Your task to perform on an android device: visit the assistant section in the google photos Image 0: 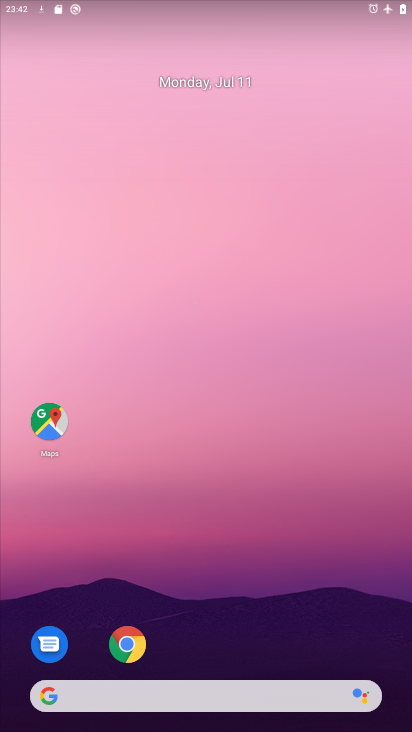
Step 0: drag from (164, 601) to (157, 296)
Your task to perform on an android device: visit the assistant section in the google photos Image 1: 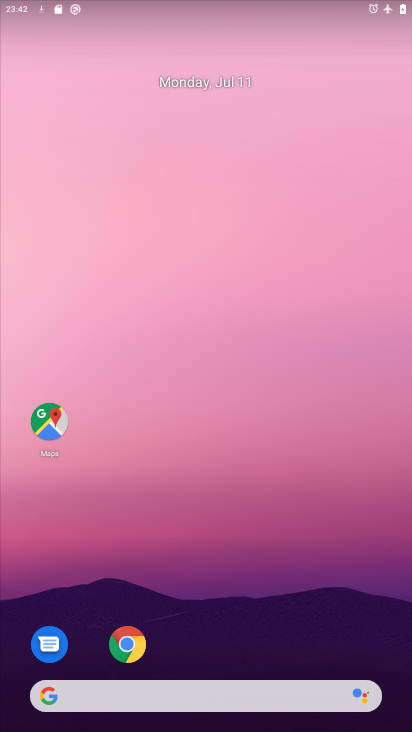
Step 1: drag from (226, 697) to (272, 255)
Your task to perform on an android device: visit the assistant section in the google photos Image 2: 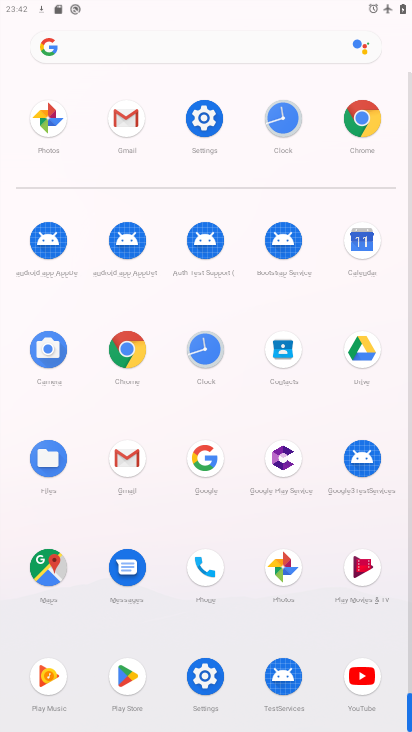
Step 2: click (276, 573)
Your task to perform on an android device: visit the assistant section in the google photos Image 3: 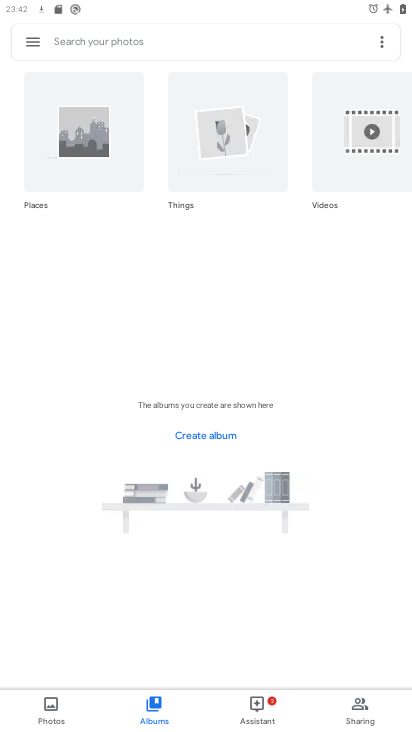
Step 3: click (238, 708)
Your task to perform on an android device: visit the assistant section in the google photos Image 4: 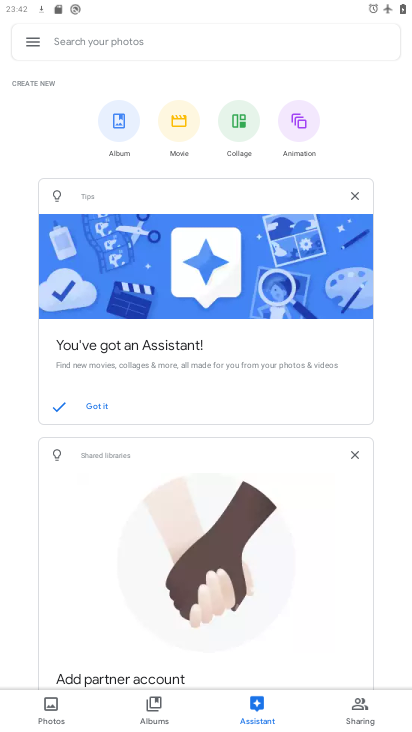
Step 4: task complete